Your task to perform on an android device: set the stopwatch Image 0: 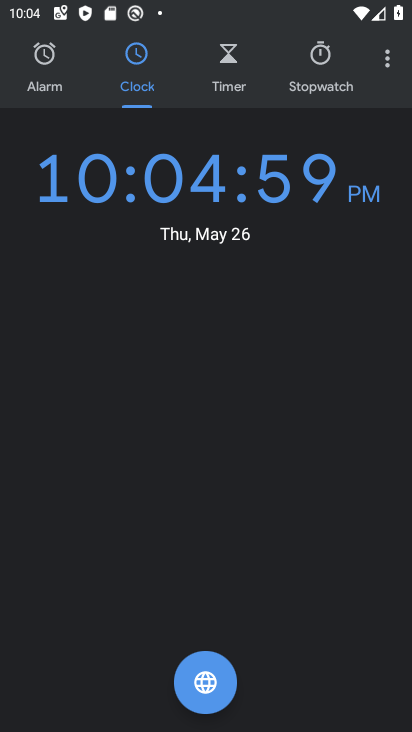
Step 0: click (335, 60)
Your task to perform on an android device: set the stopwatch Image 1: 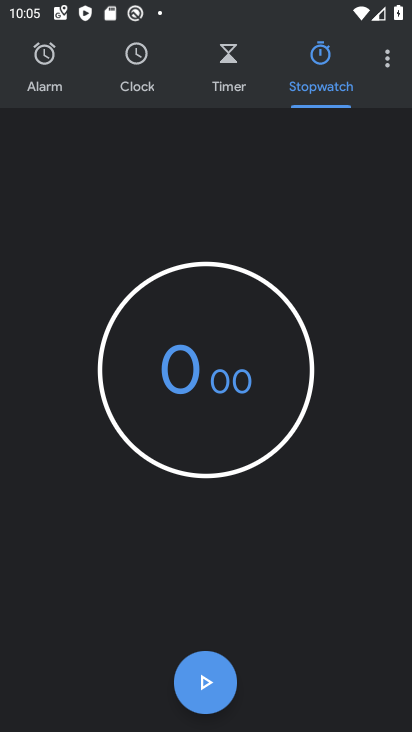
Step 1: click (190, 674)
Your task to perform on an android device: set the stopwatch Image 2: 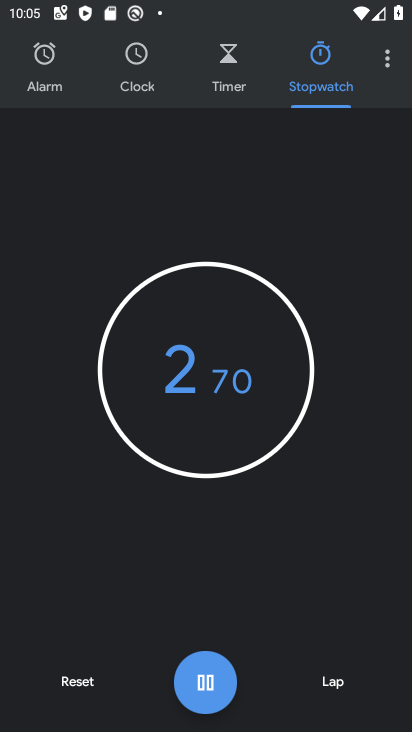
Step 2: task complete